Your task to perform on an android device: add a contact Image 0: 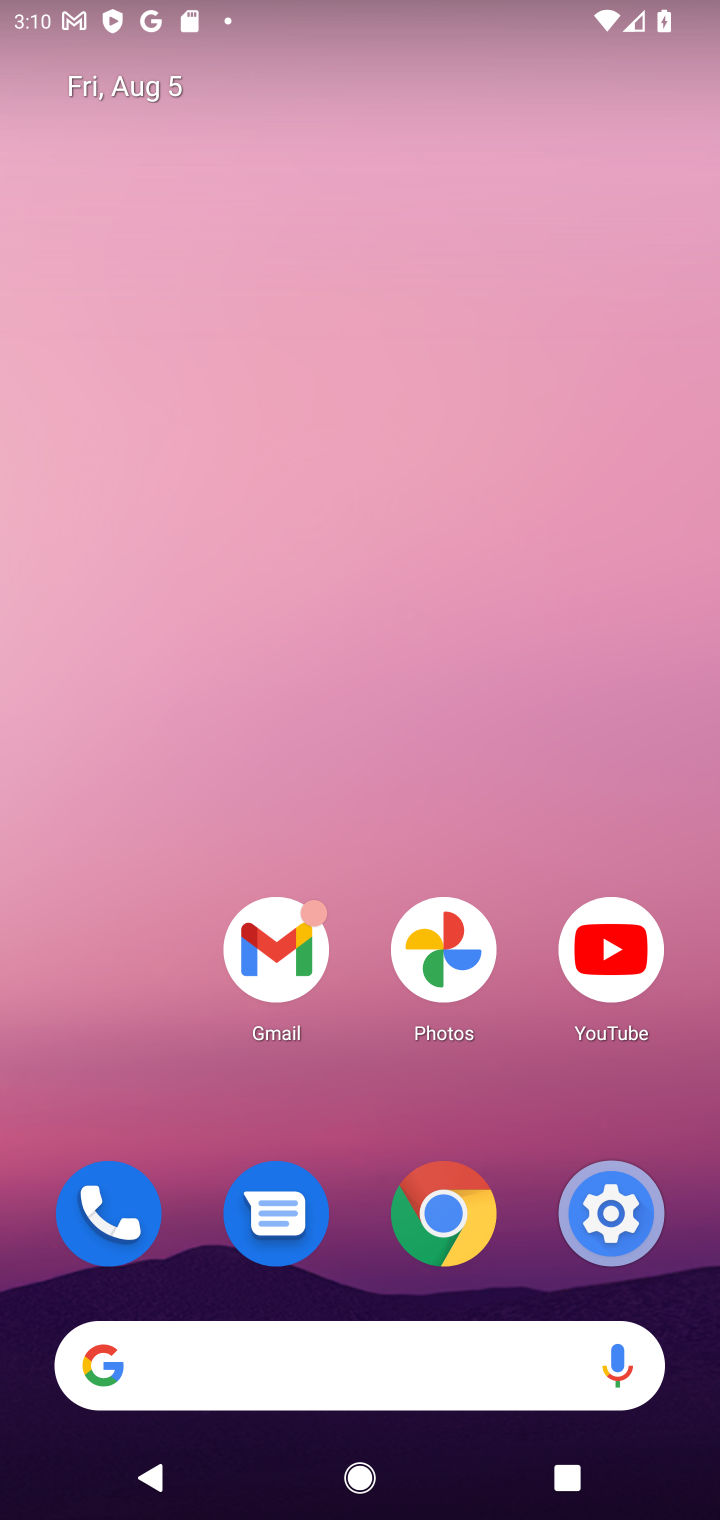
Step 0: drag from (348, 1286) to (405, 743)
Your task to perform on an android device: add a contact Image 1: 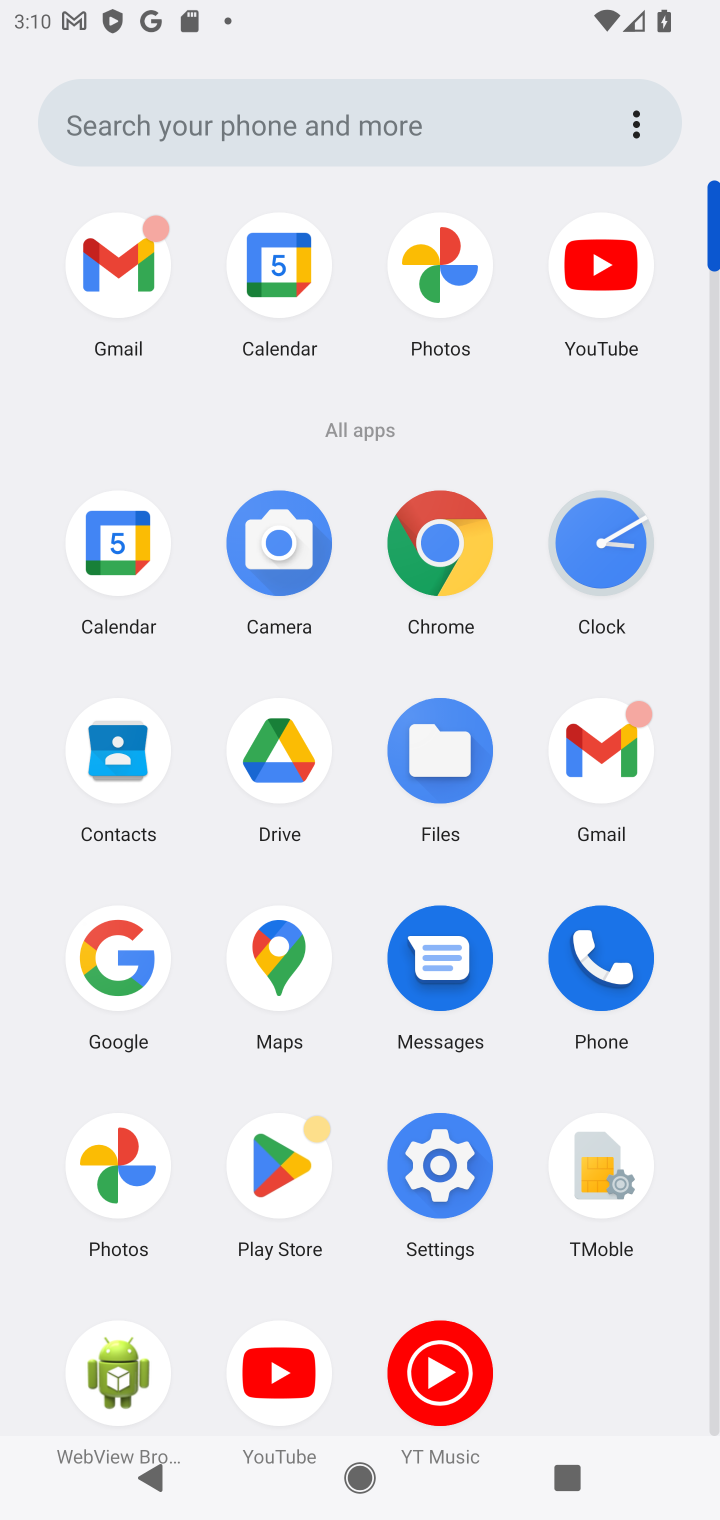
Step 1: click (122, 796)
Your task to perform on an android device: add a contact Image 2: 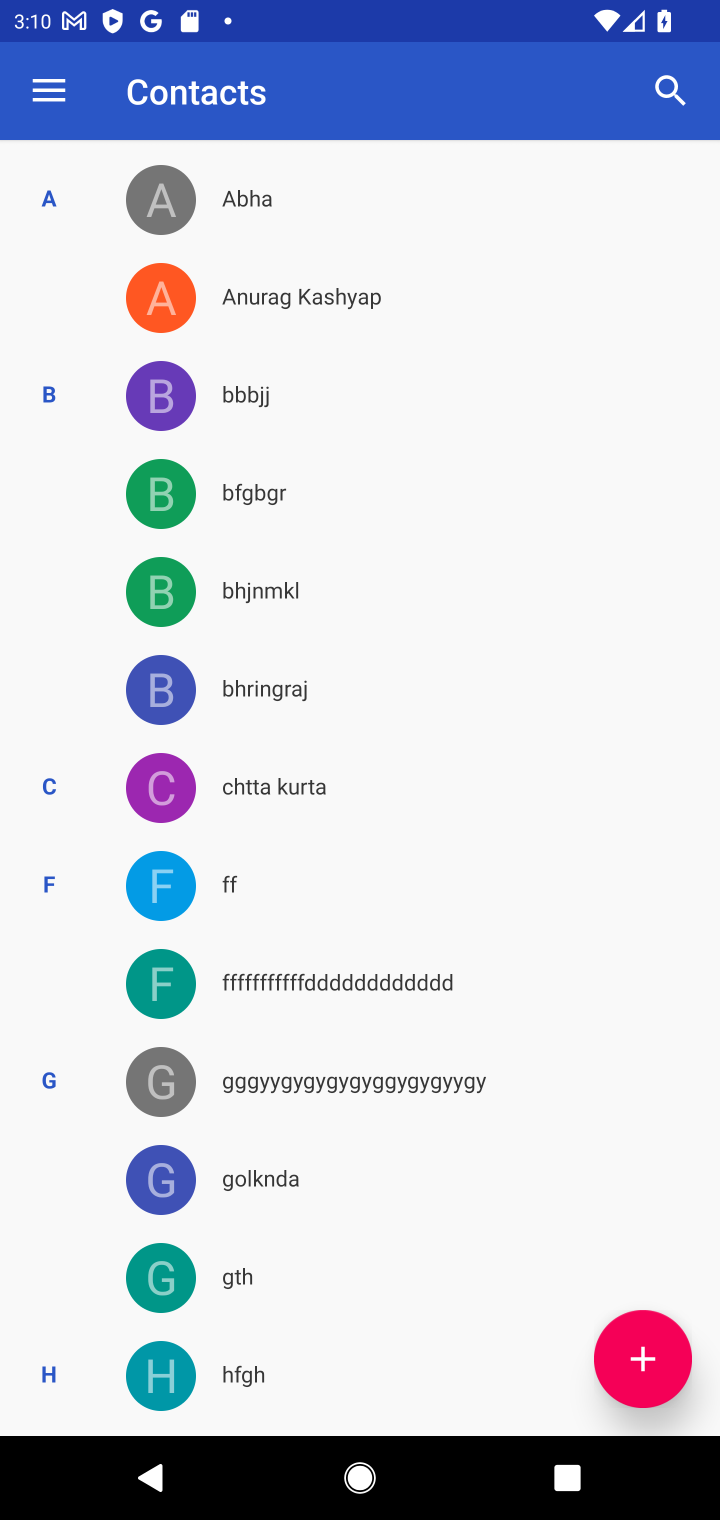
Step 2: click (613, 1361)
Your task to perform on an android device: add a contact Image 3: 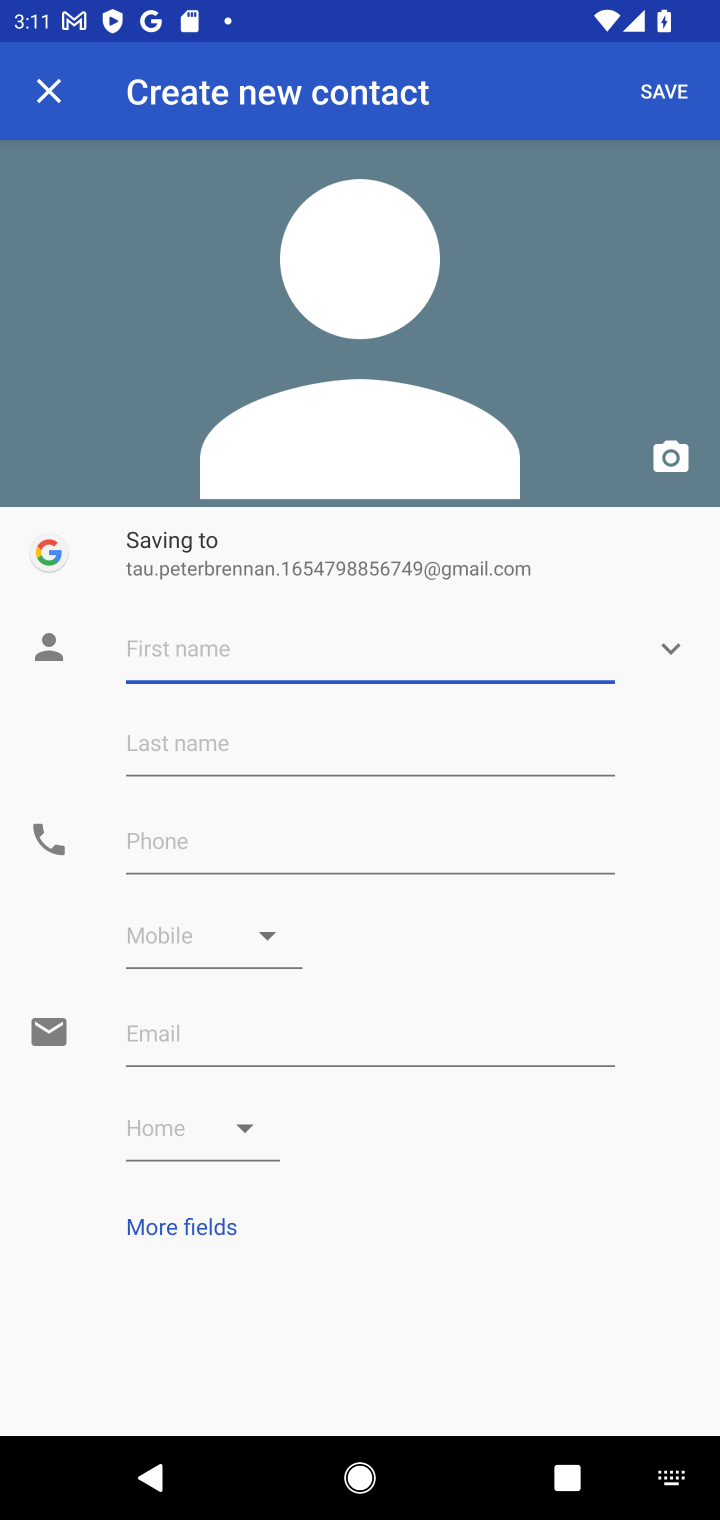
Step 3: type "das"
Your task to perform on an android device: add a contact Image 4: 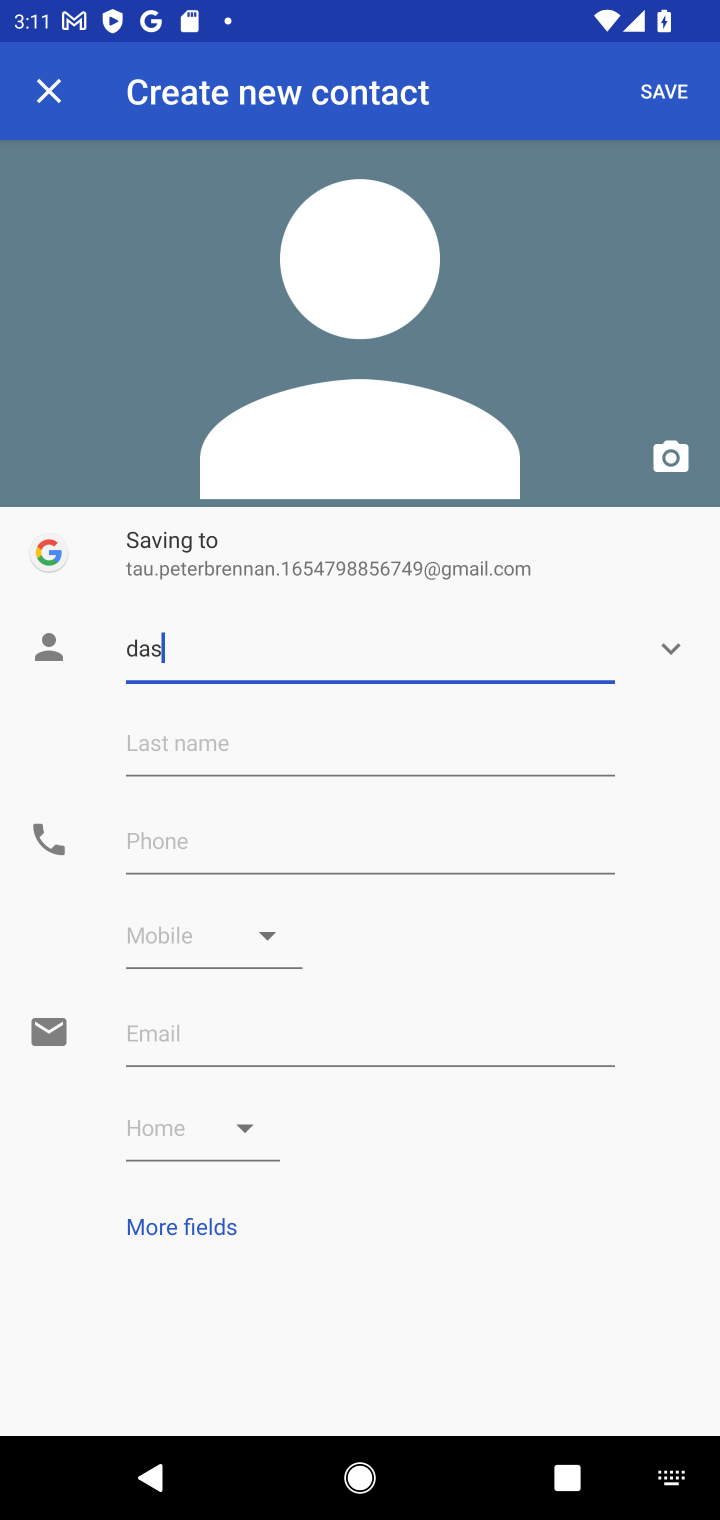
Step 4: click (498, 734)
Your task to perform on an android device: add a contact Image 5: 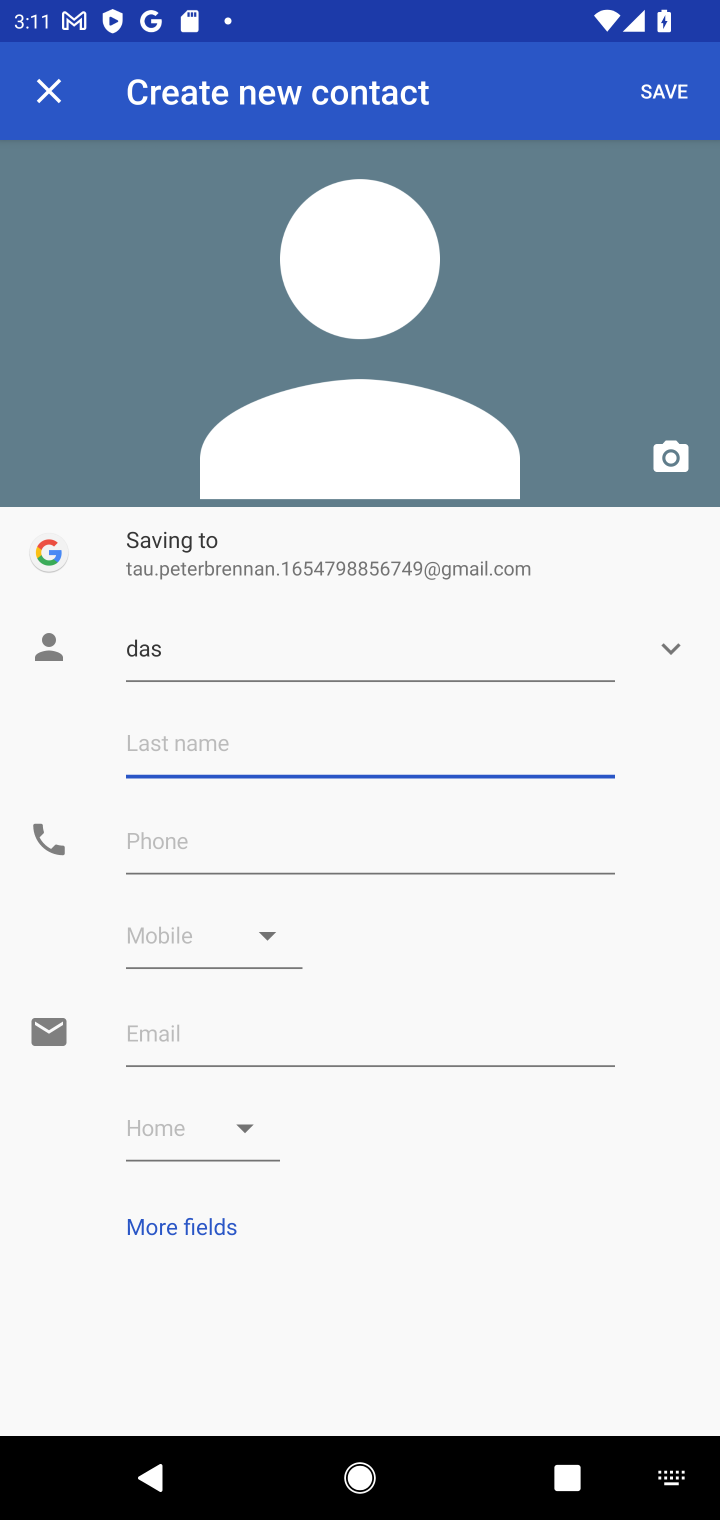
Step 5: type "addas"
Your task to perform on an android device: add a contact Image 6: 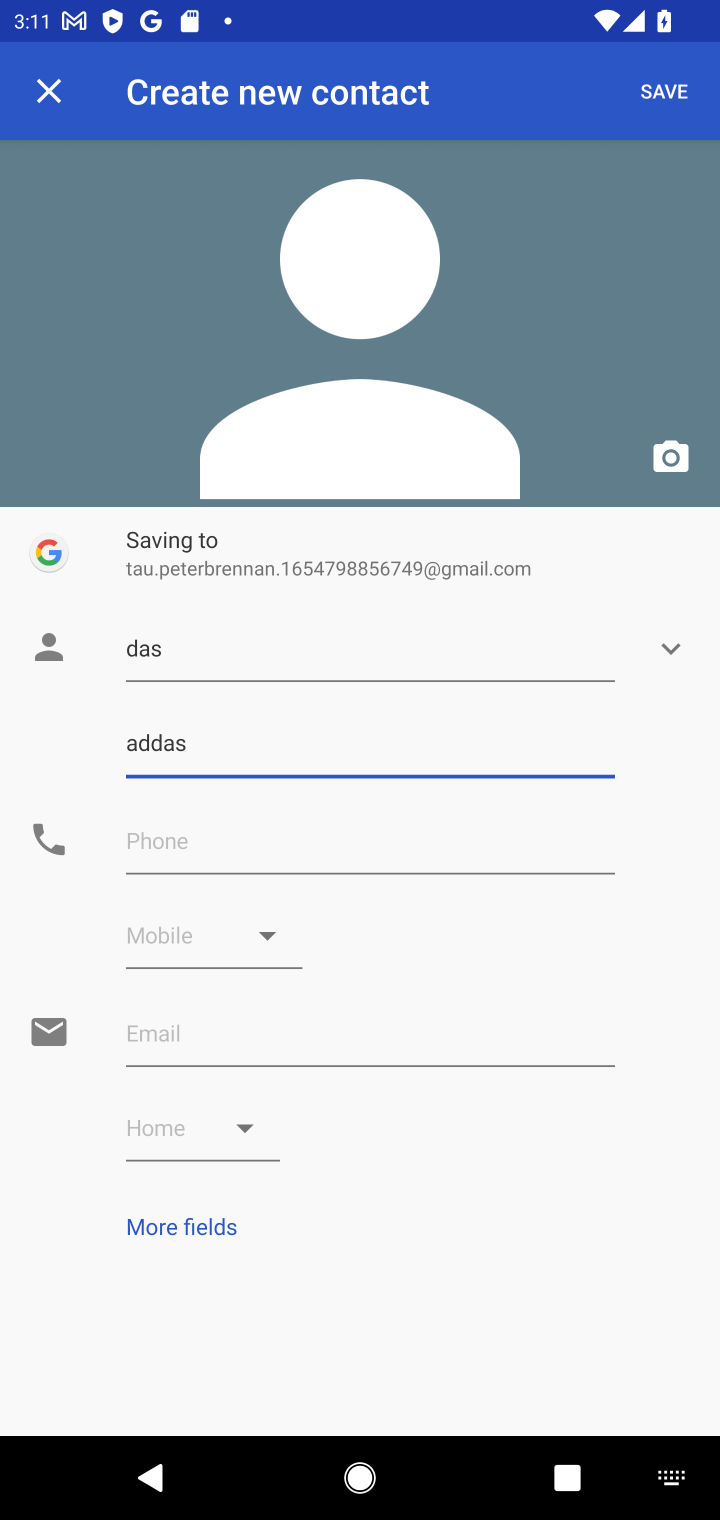
Step 6: click (388, 840)
Your task to perform on an android device: add a contact Image 7: 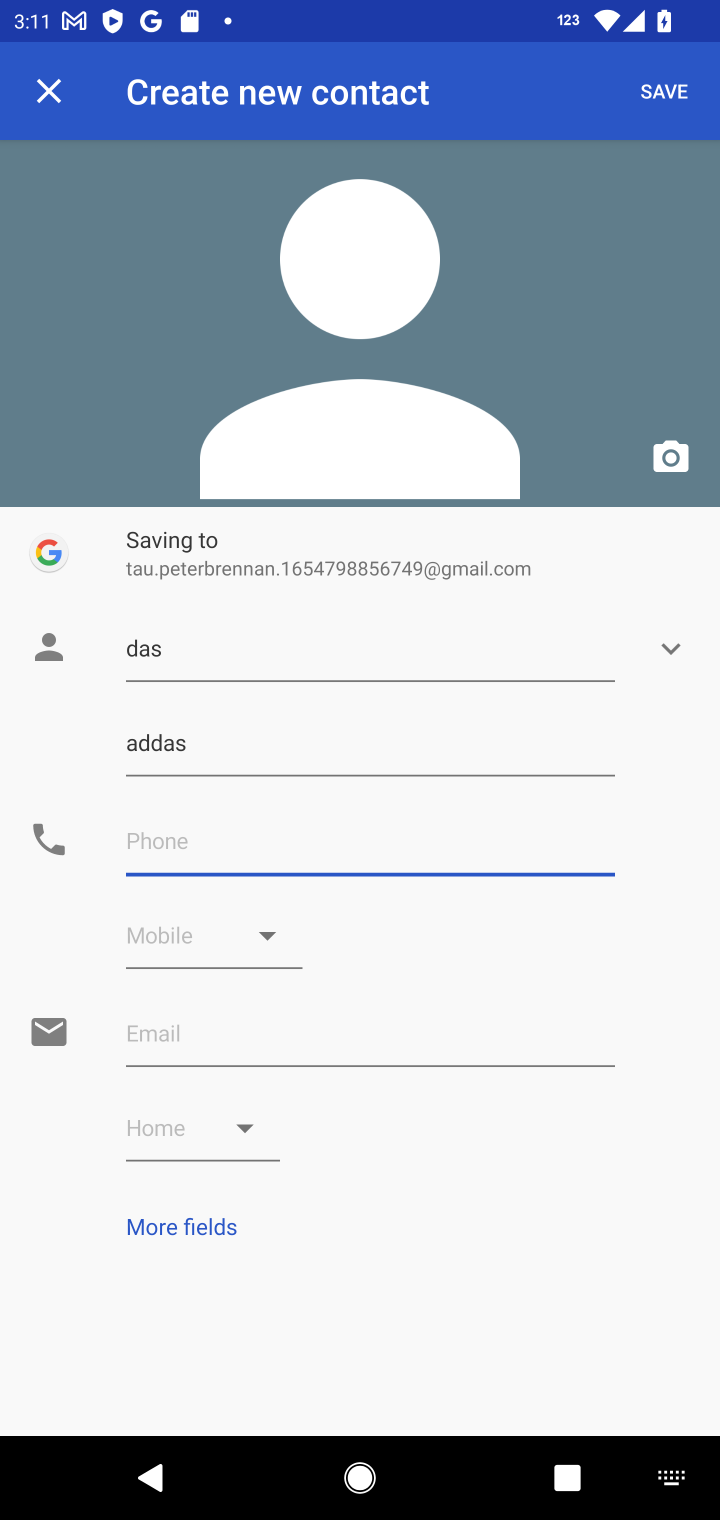
Step 7: type "12343567890"
Your task to perform on an android device: add a contact Image 8: 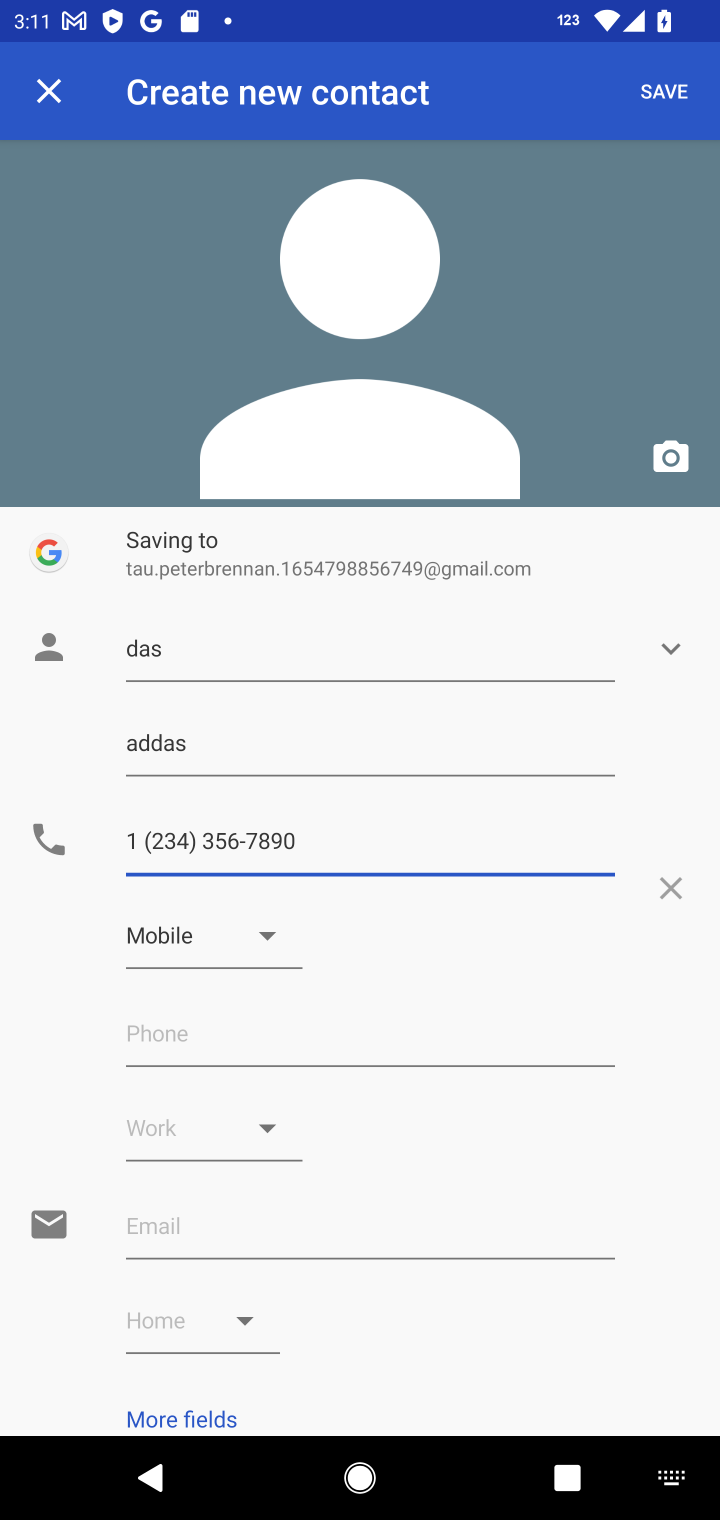
Step 8: click (660, 91)
Your task to perform on an android device: add a contact Image 9: 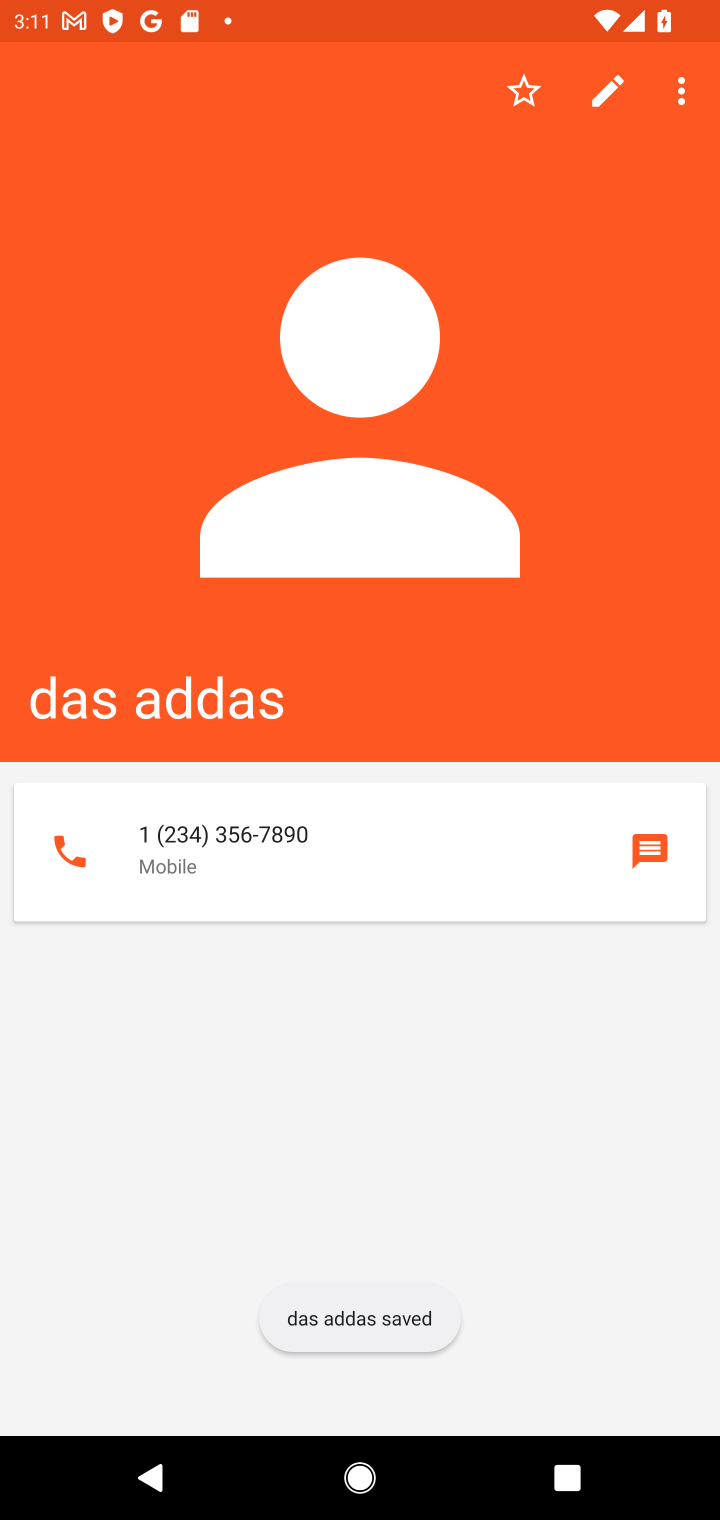
Step 9: task complete